Your task to perform on an android device: delete location history Image 0: 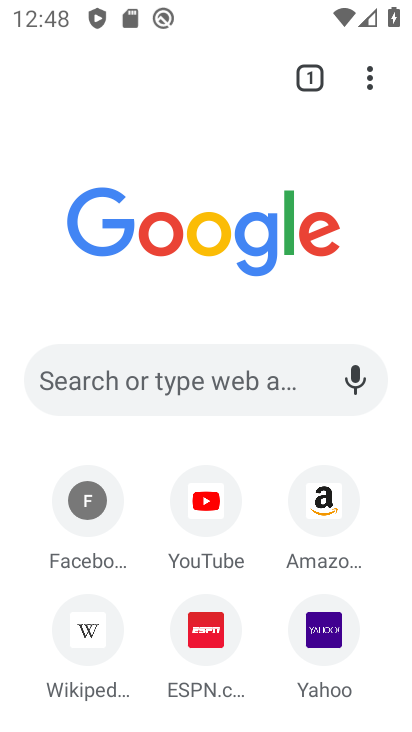
Step 0: drag from (274, 638) to (266, 288)
Your task to perform on an android device: delete location history Image 1: 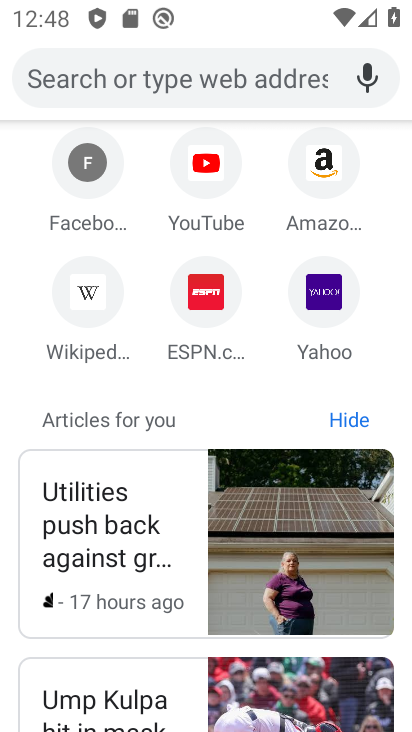
Step 1: drag from (188, 654) to (209, 358)
Your task to perform on an android device: delete location history Image 2: 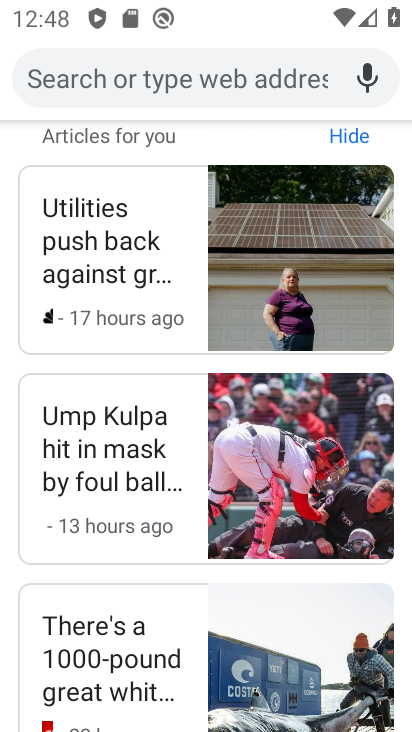
Step 2: drag from (214, 162) to (241, 731)
Your task to perform on an android device: delete location history Image 3: 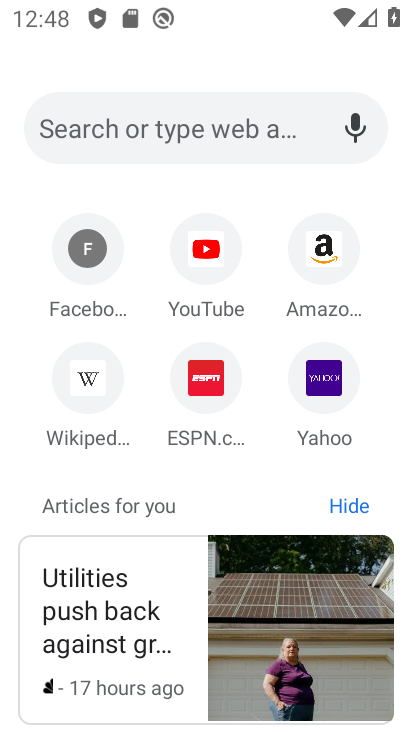
Step 3: press home button
Your task to perform on an android device: delete location history Image 4: 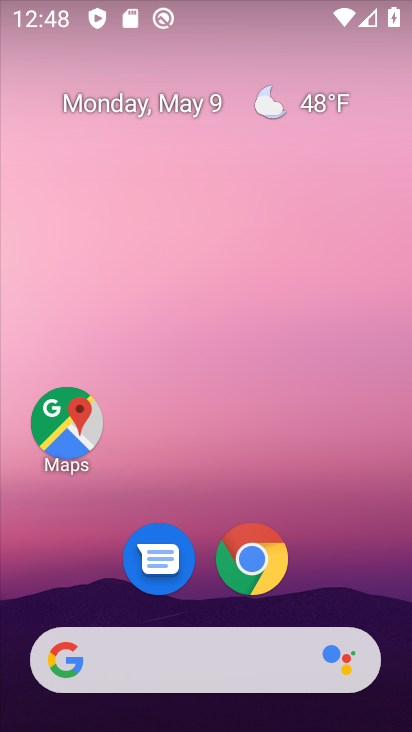
Step 4: drag from (193, 644) to (247, 179)
Your task to perform on an android device: delete location history Image 5: 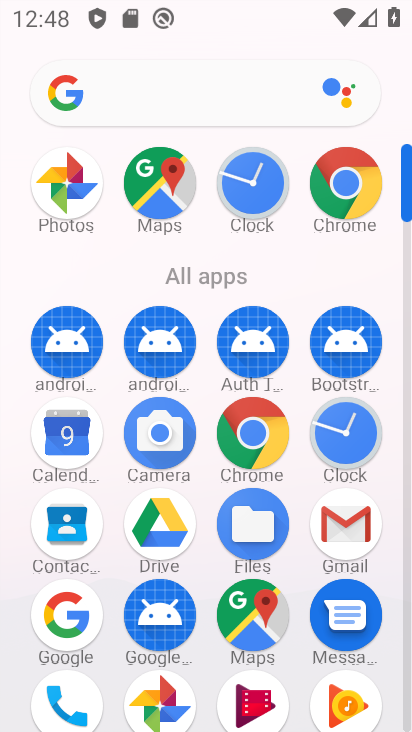
Step 5: drag from (201, 665) to (210, 340)
Your task to perform on an android device: delete location history Image 6: 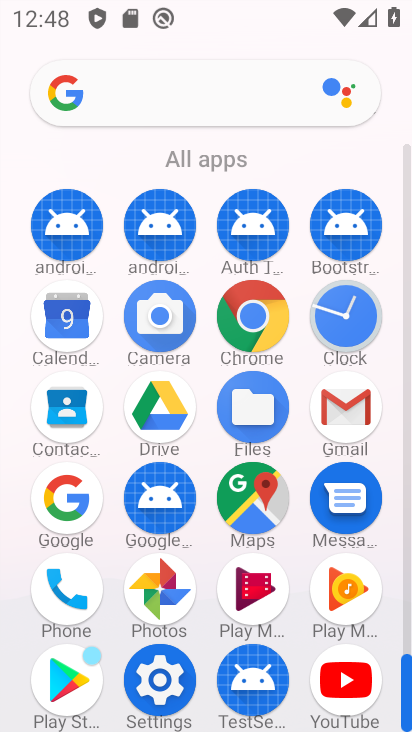
Step 6: click (157, 680)
Your task to perform on an android device: delete location history Image 7: 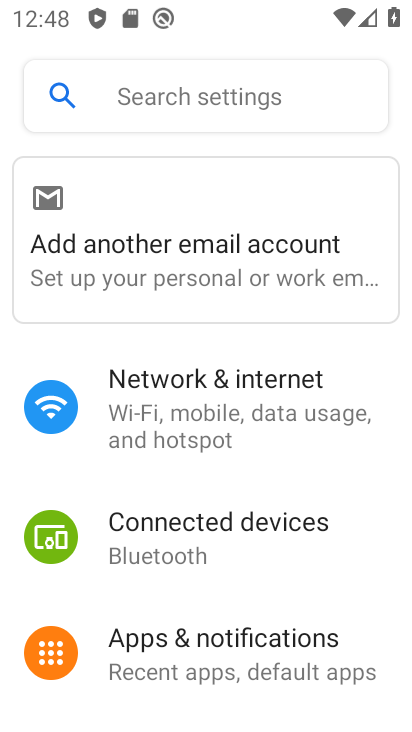
Step 7: drag from (232, 623) to (220, 297)
Your task to perform on an android device: delete location history Image 8: 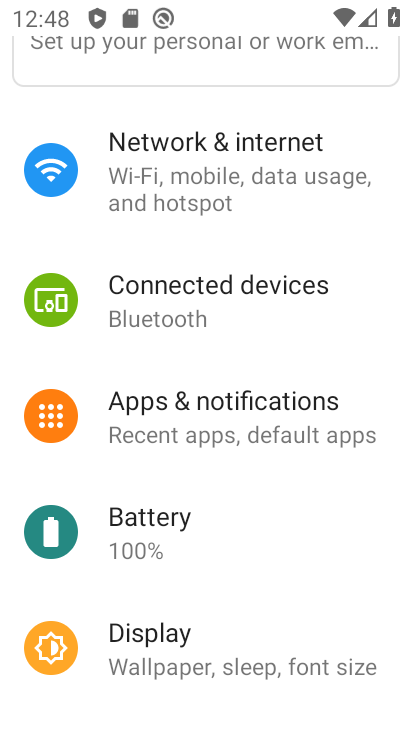
Step 8: drag from (242, 611) to (257, 270)
Your task to perform on an android device: delete location history Image 9: 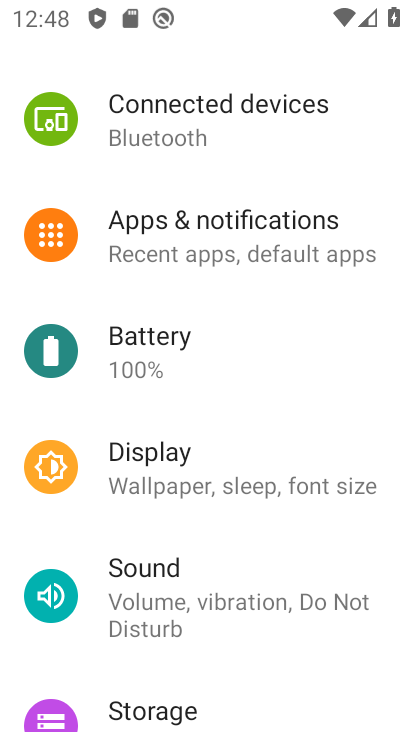
Step 9: drag from (204, 578) to (236, 105)
Your task to perform on an android device: delete location history Image 10: 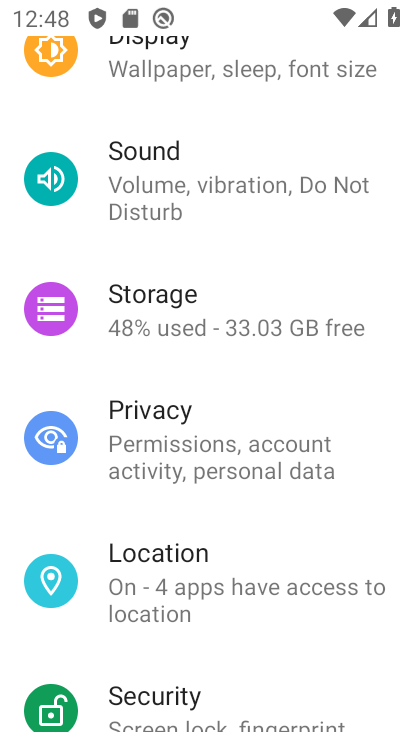
Step 10: click (214, 552)
Your task to perform on an android device: delete location history Image 11: 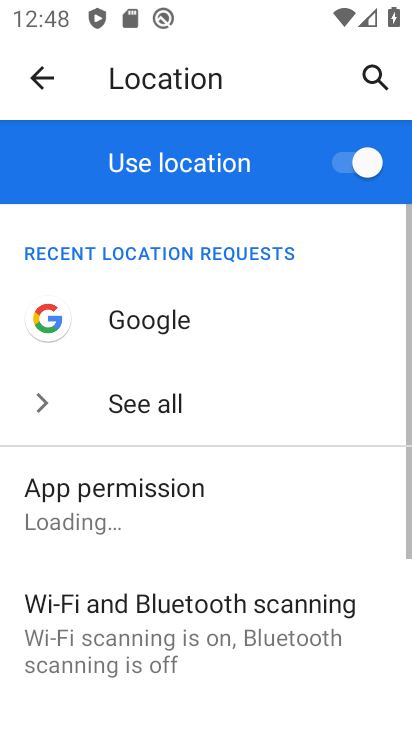
Step 11: drag from (223, 574) to (288, 60)
Your task to perform on an android device: delete location history Image 12: 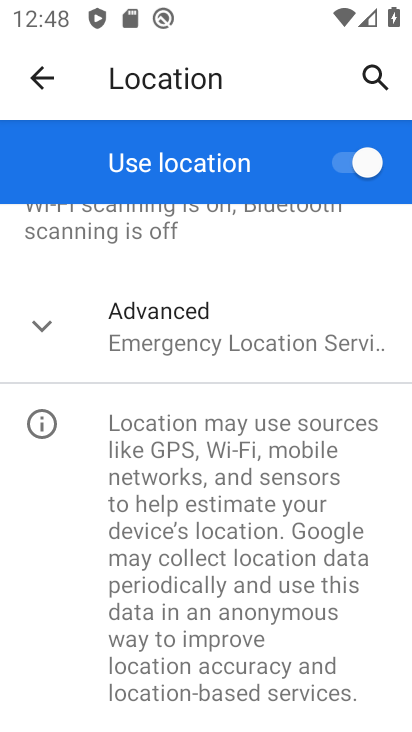
Step 12: drag from (216, 636) to (256, 269)
Your task to perform on an android device: delete location history Image 13: 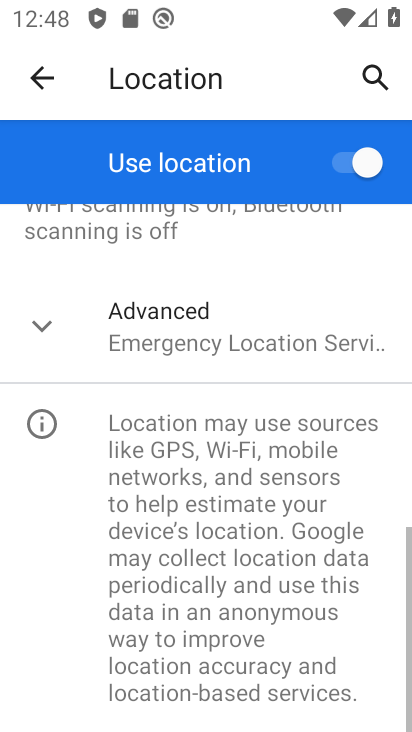
Step 13: drag from (186, 628) to (250, 207)
Your task to perform on an android device: delete location history Image 14: 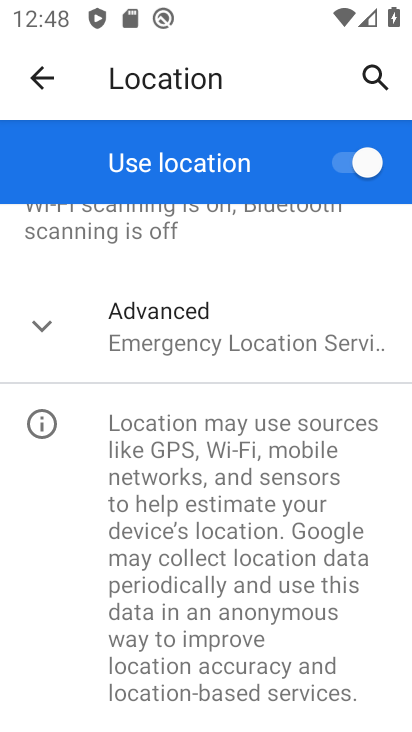
Step 14: click (163, 330)
Your task to perform on an android device: delete location history Image 15: 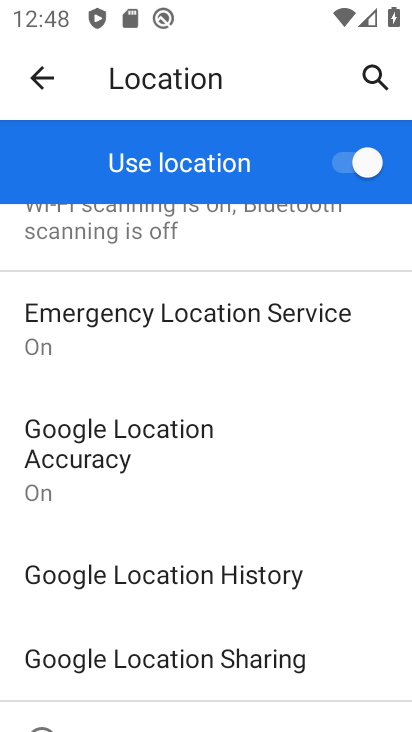
Step 15: drag from (267, 616) to (278, 369)
Your task to perform on an android device: delete location history Image 16: 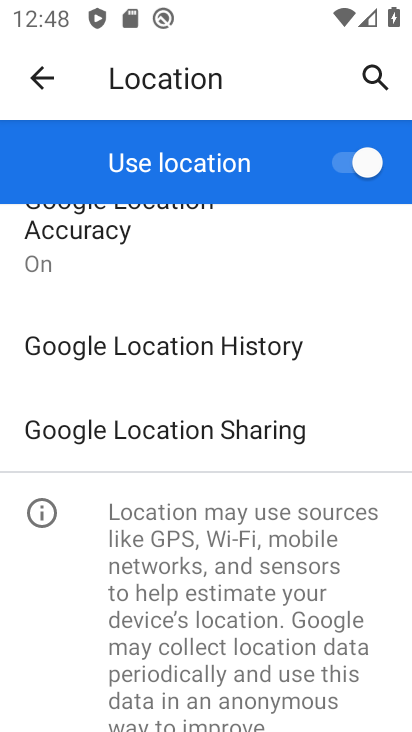
Step 16: click (229, 334)
Your task to perform on an android device: delete location history Image 17: 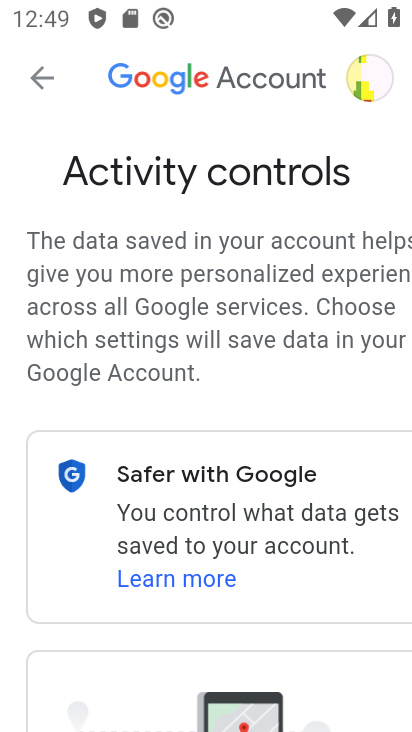
Step 17: drag from (265, 613) to (274, 183)
Your task to perform on an android device: delete location history Image 18: 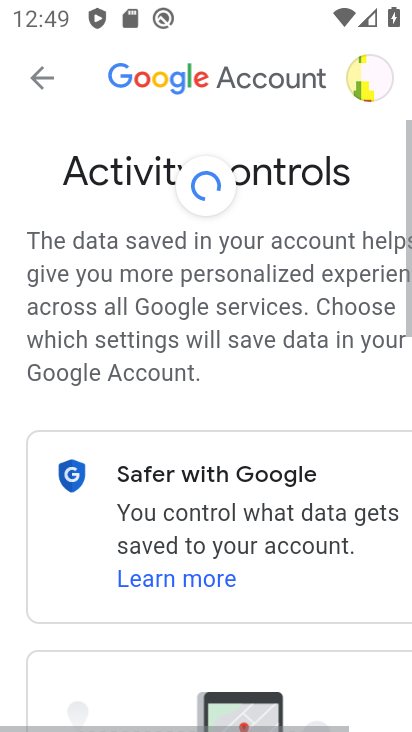
Step 18: drag from (264, 589) to (233, 304)
Your task to perform on an android device: delete location history Image 19: 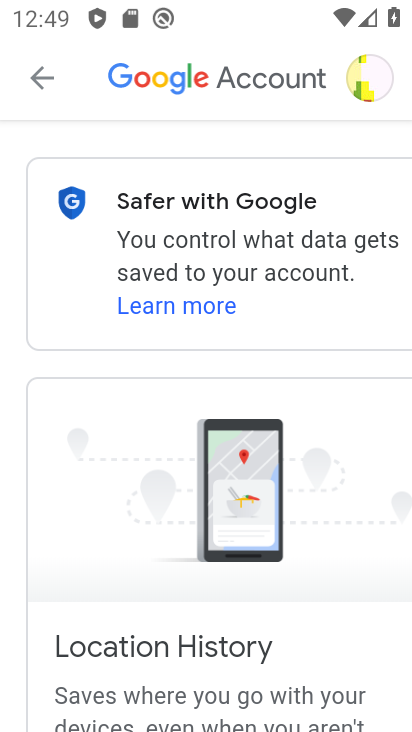
Step 19: drag from (253, 662) to (178, 337)
Your task to perform on an android device: delete location history Image 20: 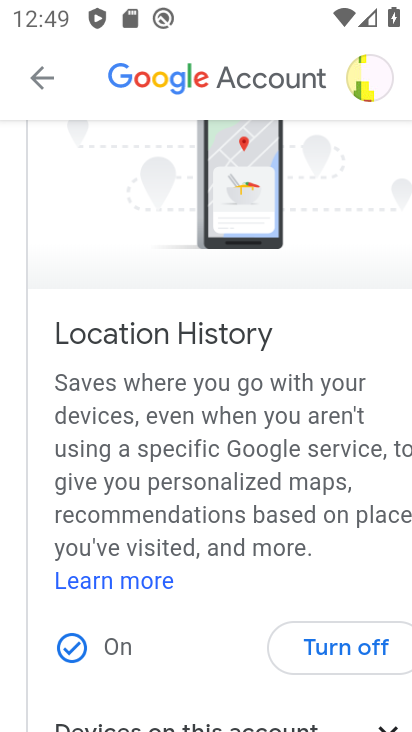
Step 20: drag from (247, 617) to (224, 415)
Your task to perform on an android device: delete location history Image 21: 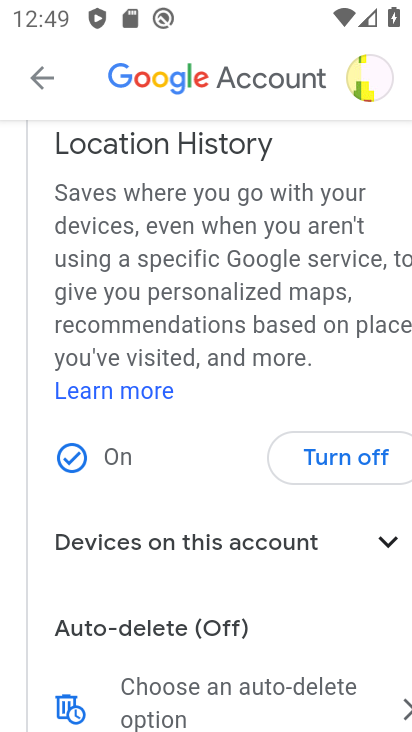
Step 21: drag from (239, 640) to (229, 355)
Your task to perform on an android device: delete location history Image 22: 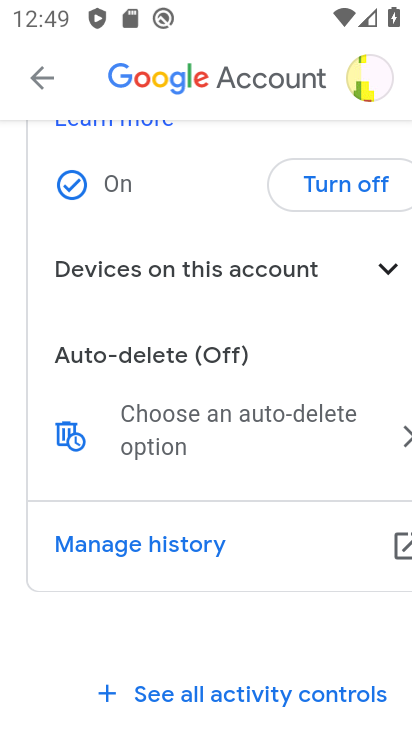
Step 22: drag from (303, 605) to (189, 203)
Your task to perform on an android device: delete location history Image 23: 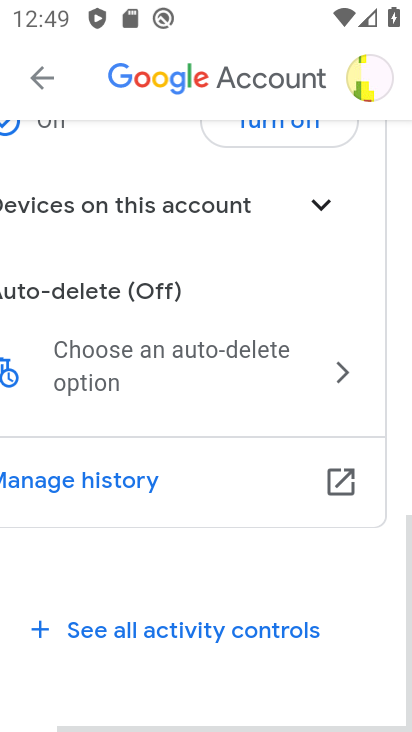
Step 23: drag from (180, 190) to (266, 715)
Your task to perform on an android device: delete location history Image 24: 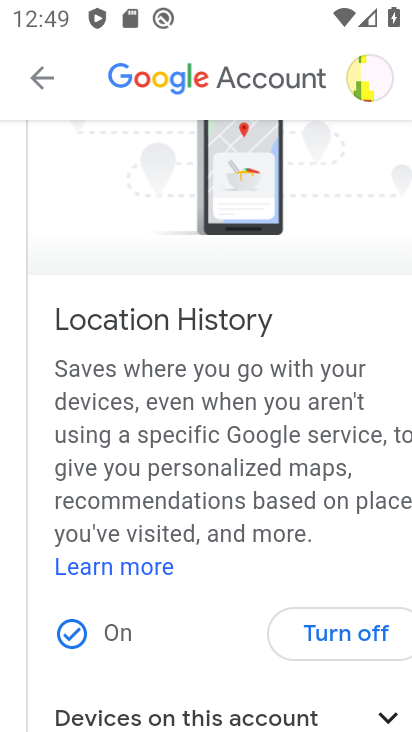
Step 24: drag from (242, 684) to (240, 287)
Your task to perform on an android device: delete location history Image 25: 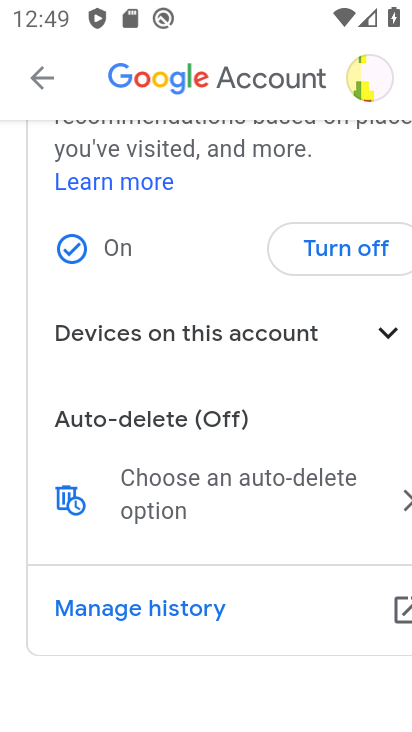
Step 25: click (56, 496)
Your task to perform on an android device: delete location history Image 26: 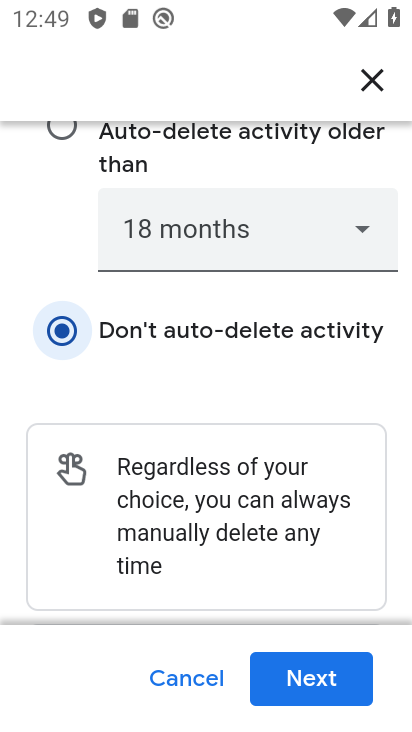
Step 26: click (305, 675)
Your task to perform on an android device: delete location history Image 27: 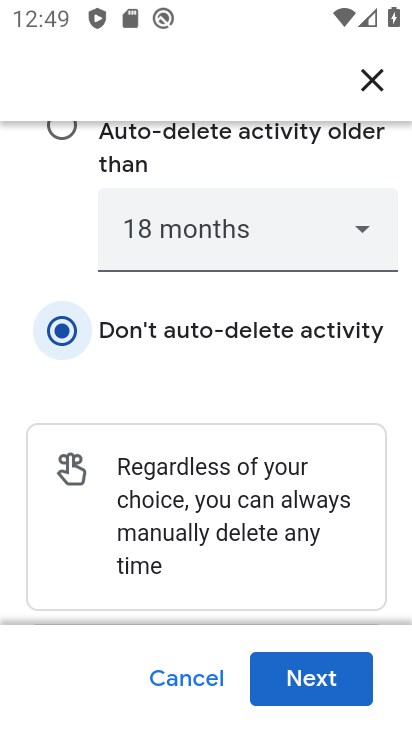
Step 27: click (304, 676)
Your task to perform on an android device: delete location history Image 28: 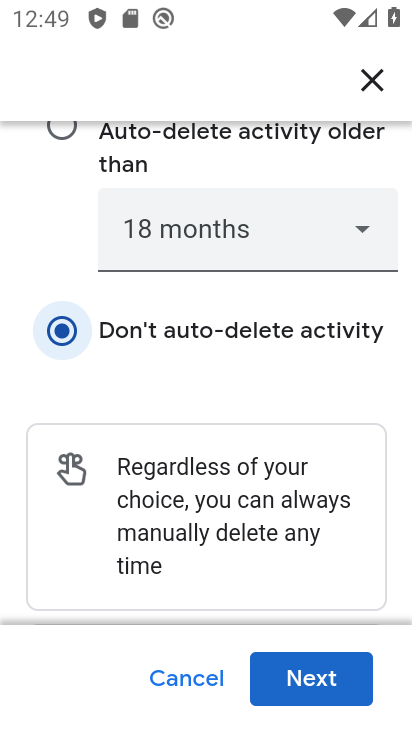
Step 28: click (304, 676)
Your task to perform on an android device: delete location history Image 29: 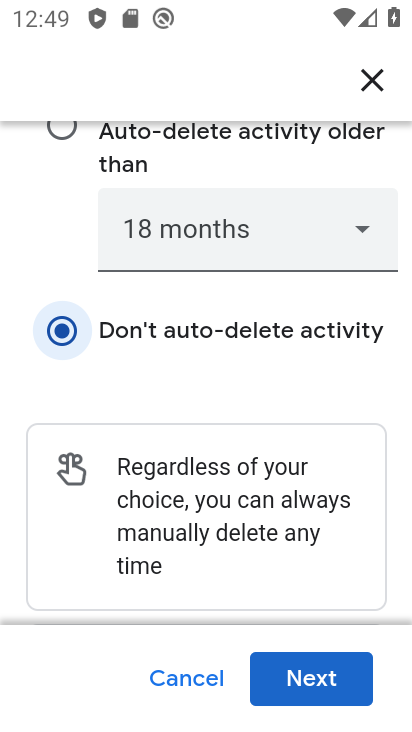
Step 29: click (304, 676)
Your task to perform on an android device: delete location history Image 30: 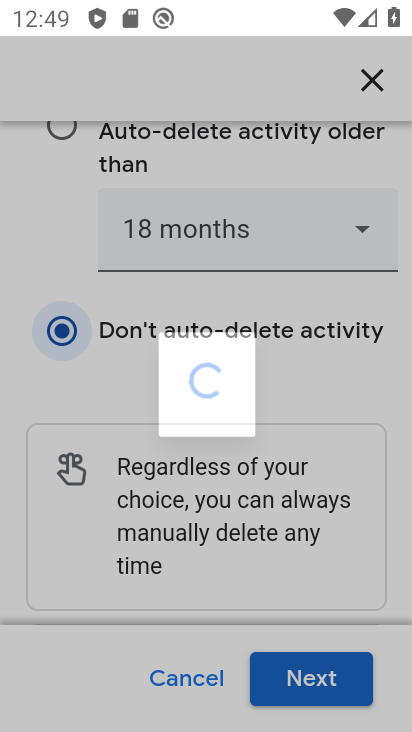
Step 30: click (317, 692)
Your task to perform on an android device: delete location history Image 31: 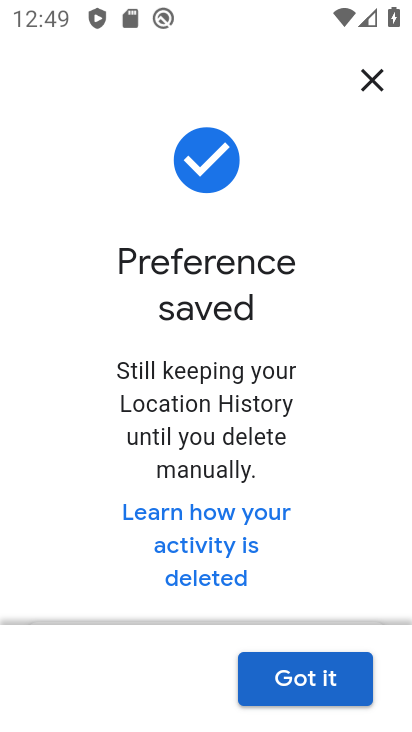
Step 31: click (331, 704)
Your task to perform on an android device: delete location history Image 32: 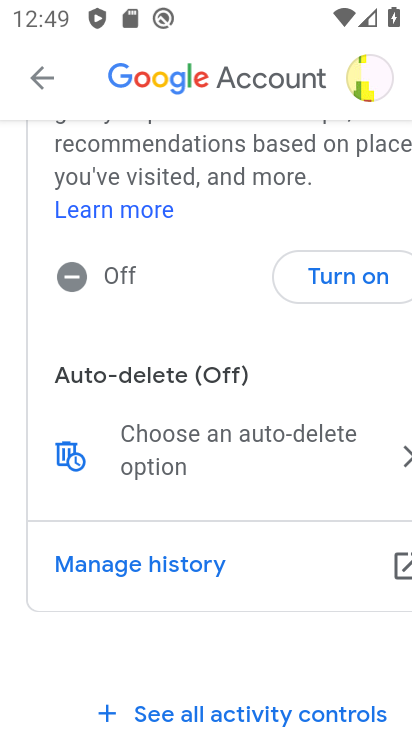
Step 32: task complete